Your task to perform on an android device: Open Google Chrome and click the shortcut for Amazon.com Image 0: 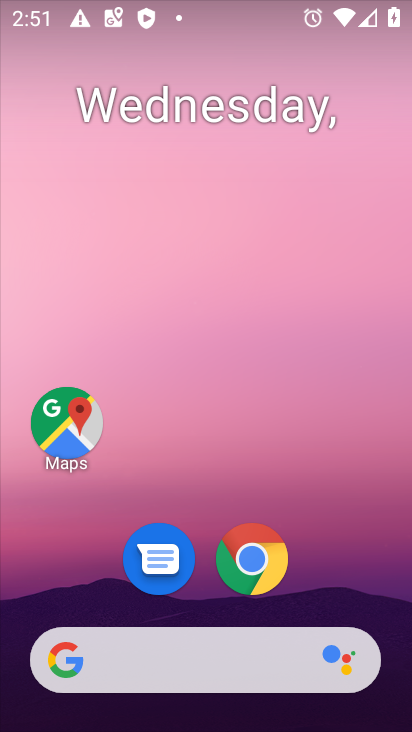
Step 0: click (263, 565)
Your task to perform on an android device: Open Google Chrome and click the shortcut for Amazon.com Image 1: 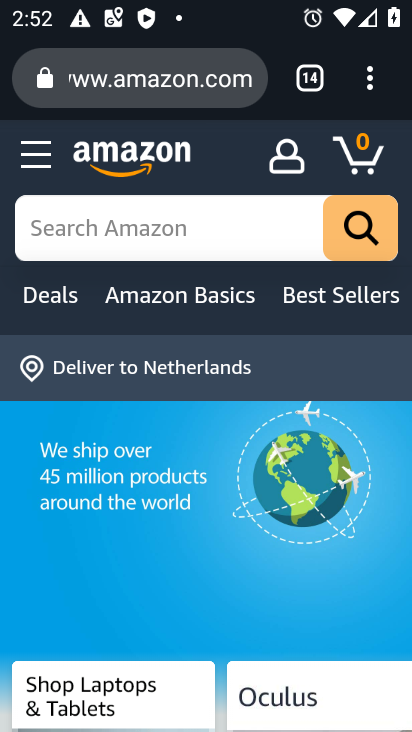
Step 1: task complete